Your task to perform on an android device: Go to accessibility settings Image 0: 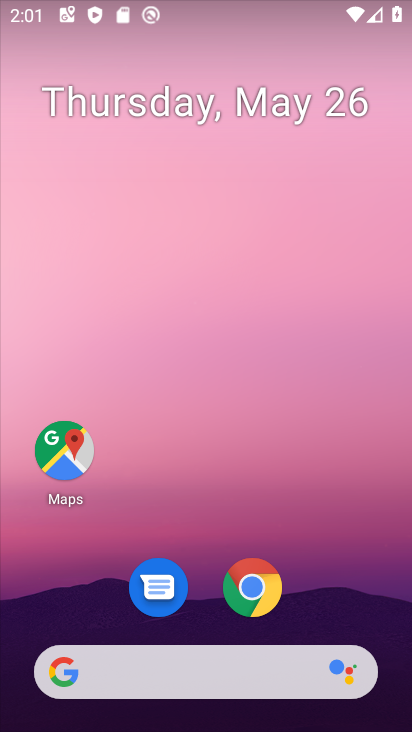
Step 0: drag from (311, 606) to (243, 62)
Your task to perform on an android device: Go to accessibility settings Image 1: 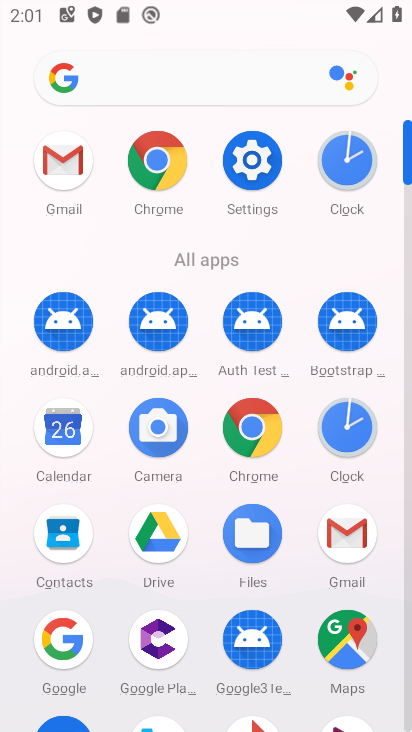
Step 1: click (244, 171)
Your task to perform on an android device: Go to accessibility settings Image 2: 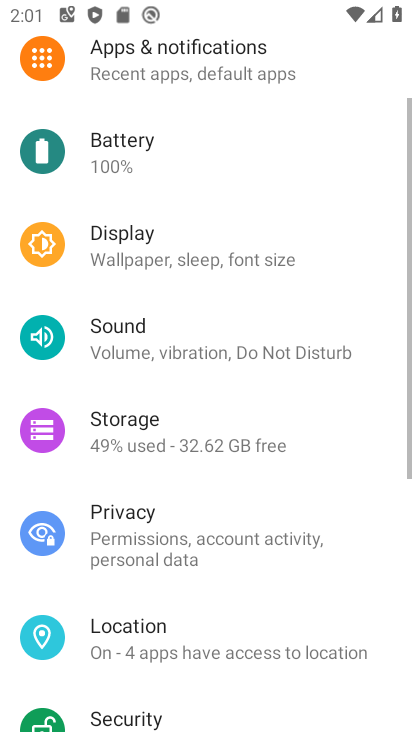
Step 2: drag from (229, 565) to (255, 50)
Your task to perform on an android device: Go to accessibility settings Image 3: 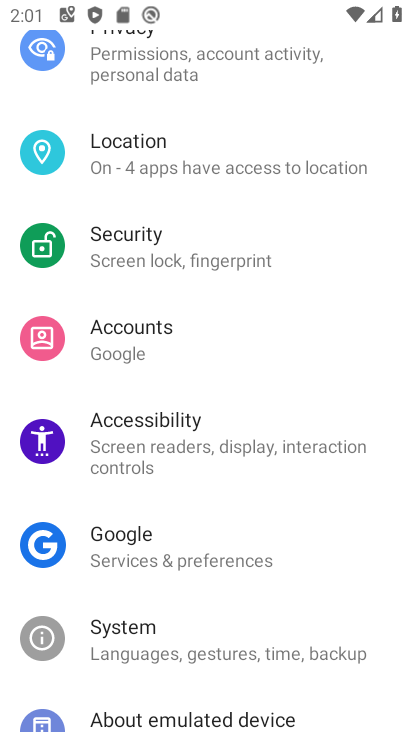
Step 3: drag from (160, 584) to (277, 230)
Your task to perform on an android device: Go to accessibility settings Image 4: 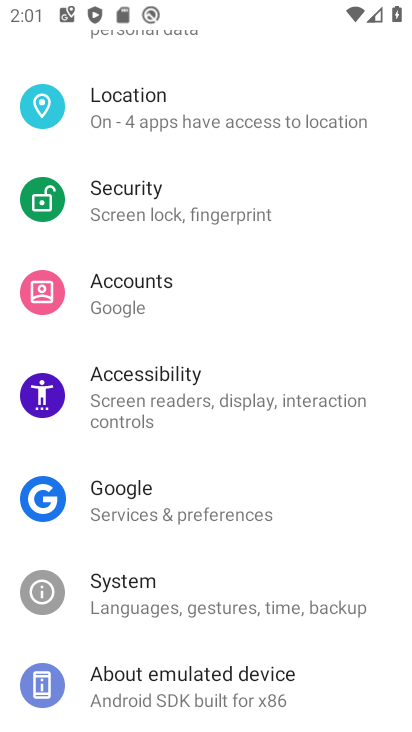
Step 4: click (121, 396)
Your task to perform on an android device: Go to accessibility settings Image 5: 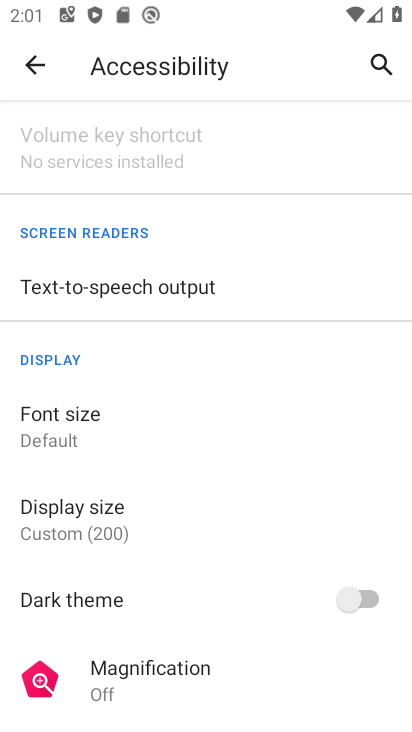
Step 5: task complete